Your task to perform on an android device: Add "usb-c to usb-a" to the cart on newegg.com Image 0: 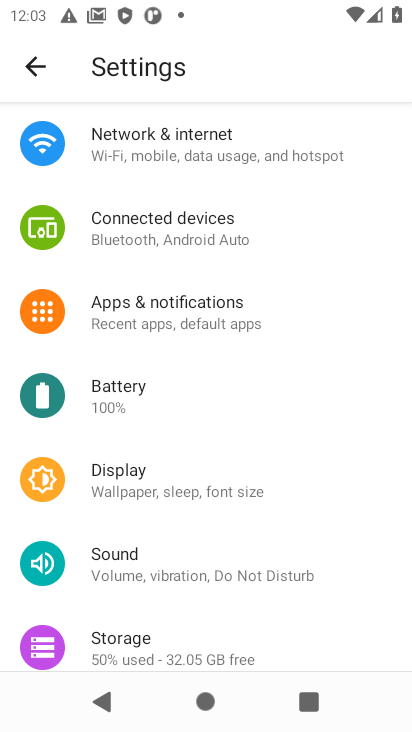
Step 0: press home button
Your task to perform on an android device: Add "usb-c to usb-a" to the cart on newegg.com Image 1: 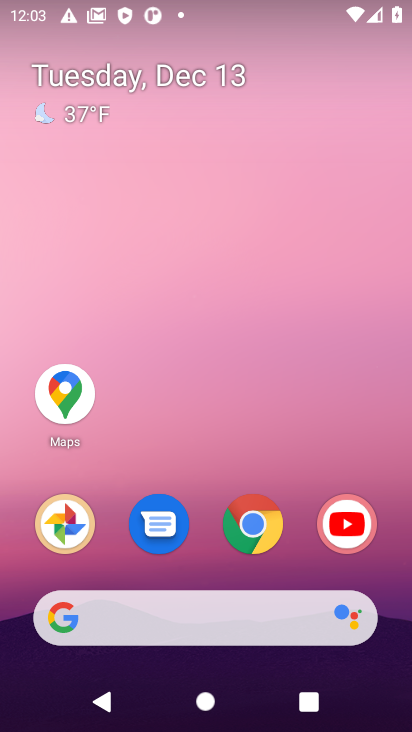
Step 1: click (253, 526)
Your task to perform on an android device: Add "usb-c to usb-a" to the cart on newegg.com Image 2: 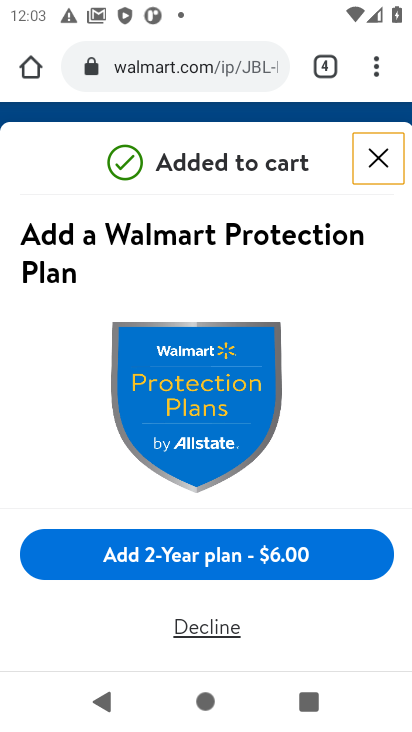
Step 2: click (167, 67)
Your task to perform on an android device: Add "usb-c to usb-a" to the cart on newegg.com Image 3: 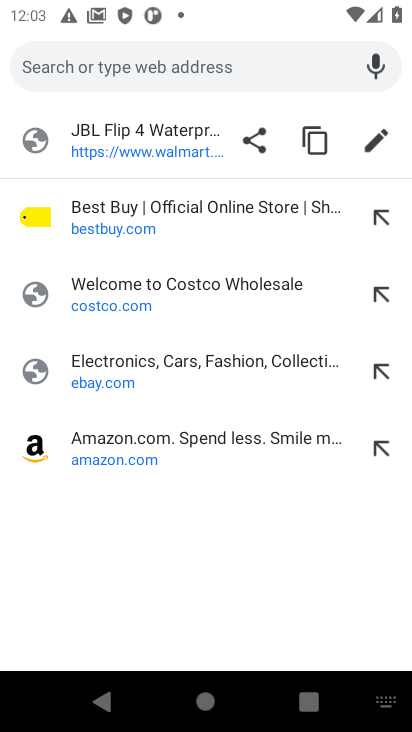
Step 3: type "newegg.com"
Your task to perform on an android device: Add "usb-c to usb-a" to the cart on newegg.com Image 4: 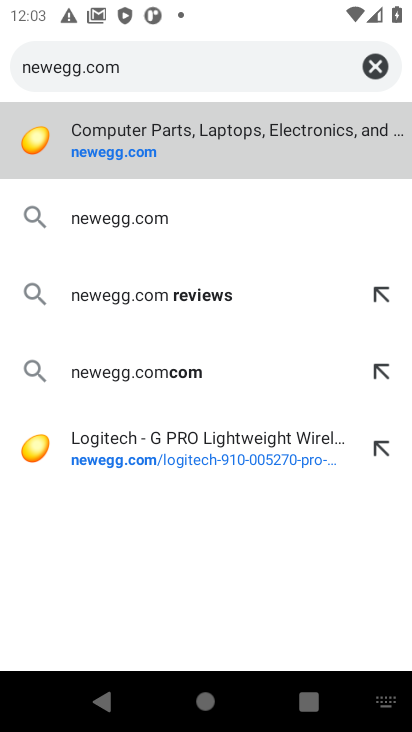
Step 4: click (111, 158)
Your task to perform on an android device: Add "usb-c to usb-a" to the cart on newegg.com Image 5: 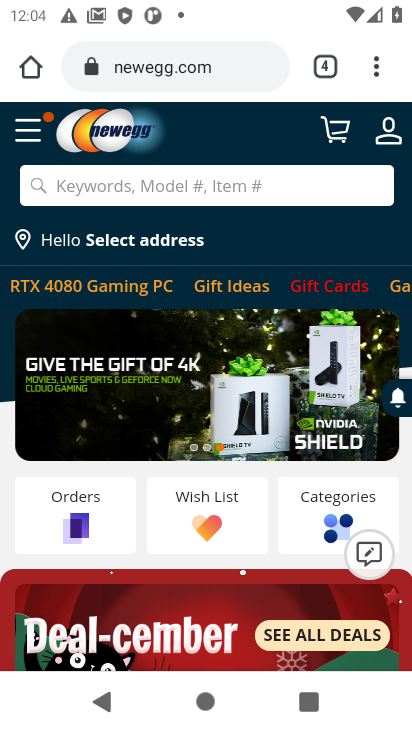
Step 5: click (86, 191)
Your task to perform on an android device: Add "usb-c to usb-a" to the cart on newegg.com Image 6: 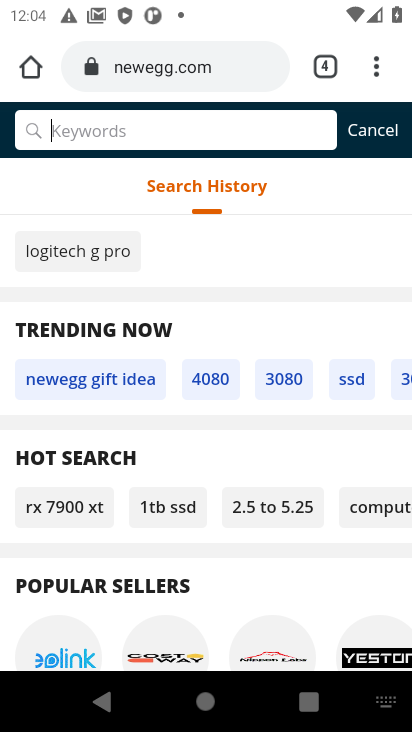
Step 6: type "usb-c to usb-a"
Your task to perform on an android device: Add "usb-c to usb-a" to the cart on newegg.com Image 7: 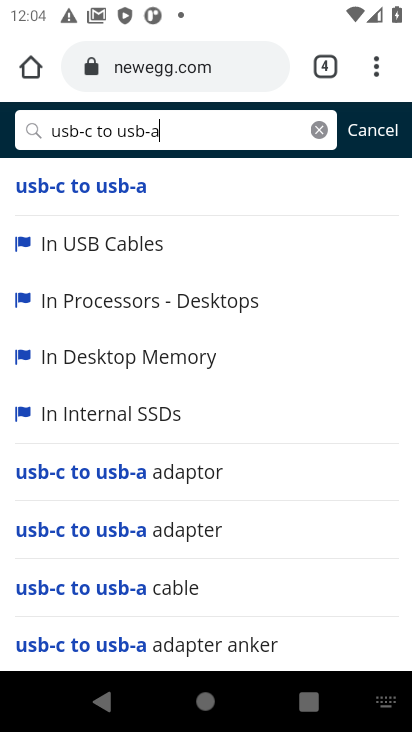
Step 7: click (122, 194)
Your task to perform on an android device: Add "usb-c to usb-a" to the cart on newegg.com Image 8: 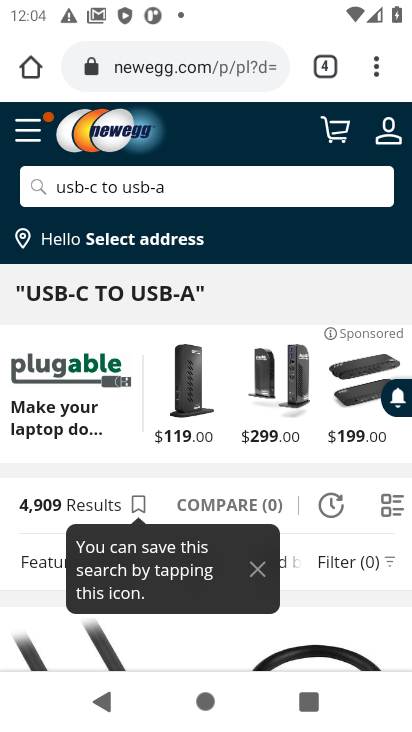
Step 8: drag from (311, 569) to (270, 265)
Your task to perform on an android device: Add "usb-c to usb-a" to the cart on newegg.com Image 9: 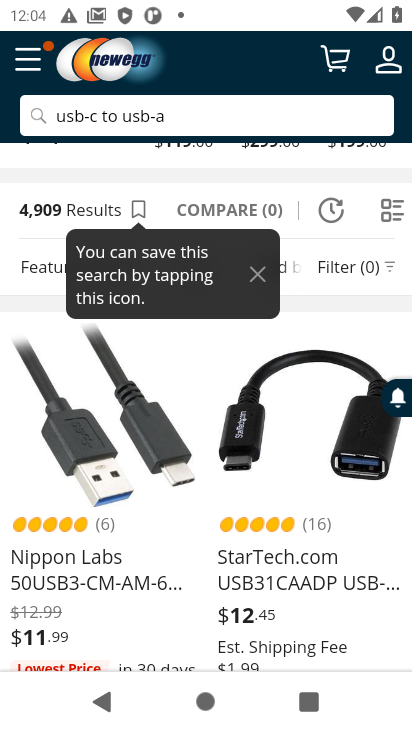
Step 9: drag from (168, 457) to (164, 173)
Your task to perform on an android device: Add "usb-c to usb-a" to the cart on newegg.com Image 10: 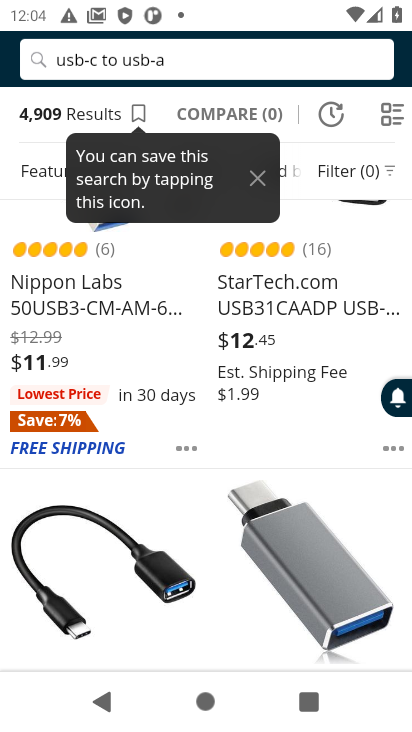
Step 10: drag from (179, 563) to (175, 280)
Your task to perform on an android device: Add "usb-c to usb-a" to the cart on newegg.com Image 11: 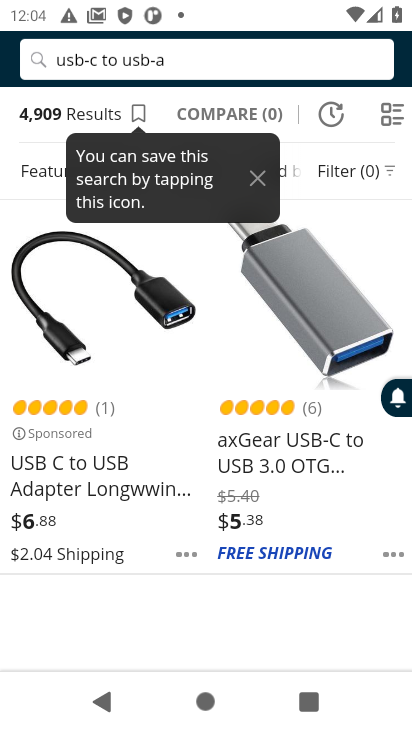
Step 11: drag from (174, 545) to (190, 239)
Your task to perform on an android device: Add "usb-c to usb-a" to the cart on newegg.com Image 12: 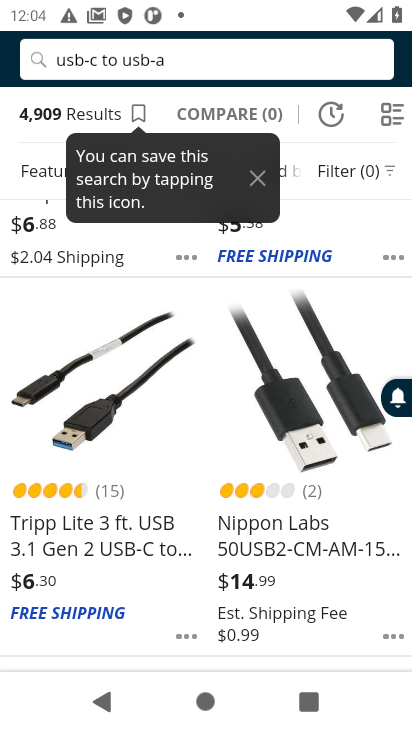
Step 12: drag from (161, 540) to (172, 264)
Your task to perform on an android device: Add "usb-c to usb-a" to the cart on newegg.com Image 13: 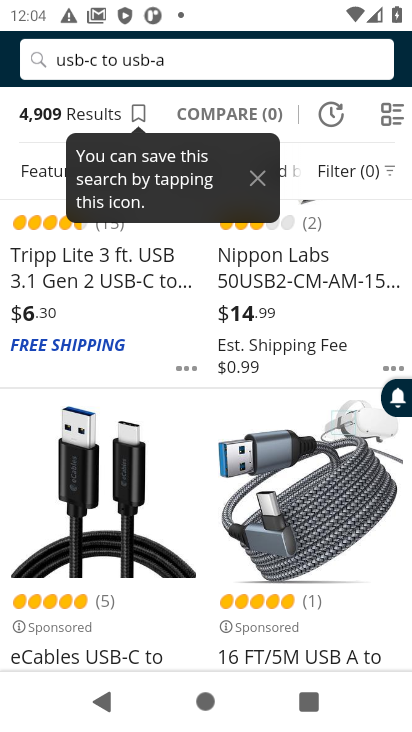
Step 13: click (81, 258)
Your task to perform on an android device: Add "usb-c to usb-a" to the cart on newegg.com Image 14: 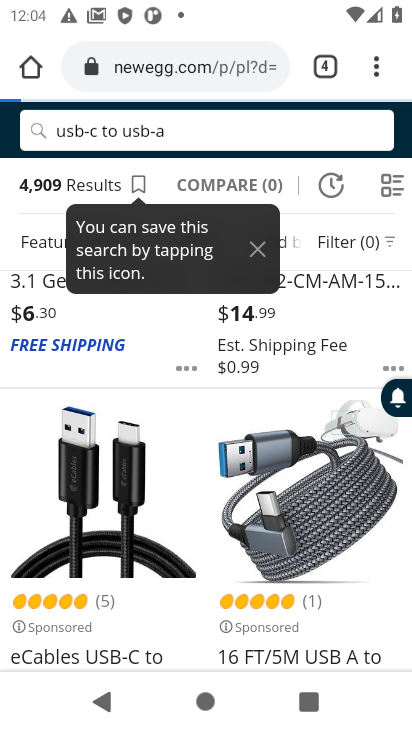
Step 14: drag from (170, 416) to (163, 235)
Your task to perform on an android device: Add "usb-c to usb-a" to the cart on newegg.com Image 15: 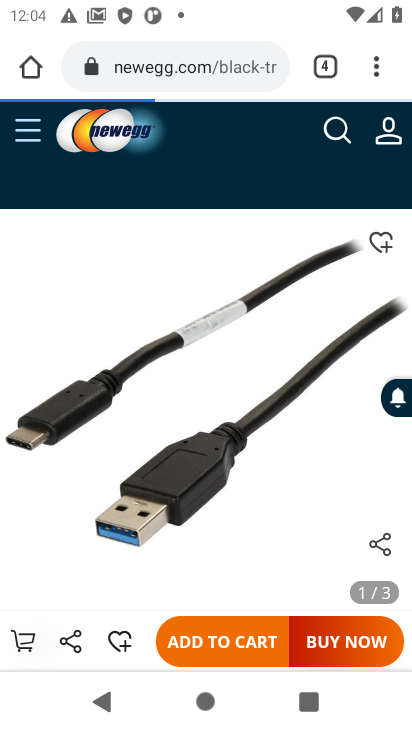
Step 15: drag from (127, 524) to (135, 223)
Your task to perform on an android device: Add "usb-c to usb-a" to the cart on newegg.com Image 16: 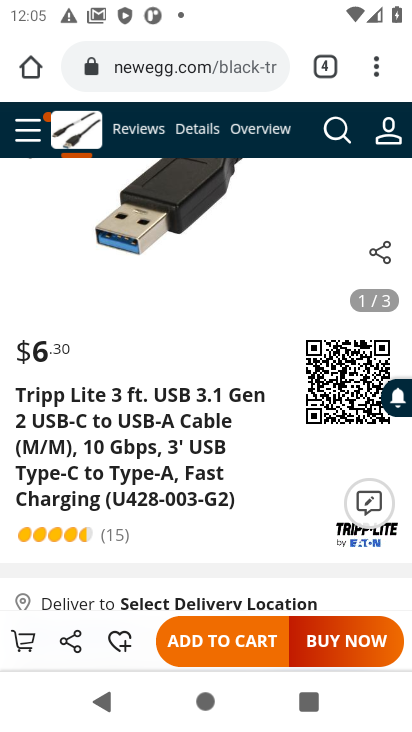
Step 16: click (193, 639)
Your task to perform on an android device: Add "usb-c to usb-a" to the cart on newegg.com Image 17: 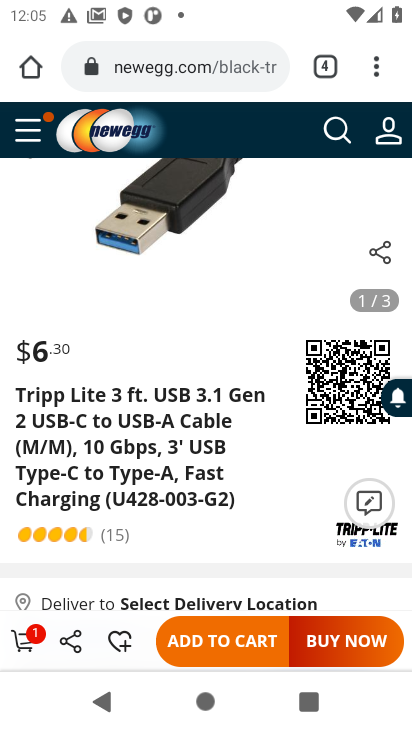
Step 17: task complete